Your task to perform on an android device: What's the weather going to be tomorrow? Image 0: 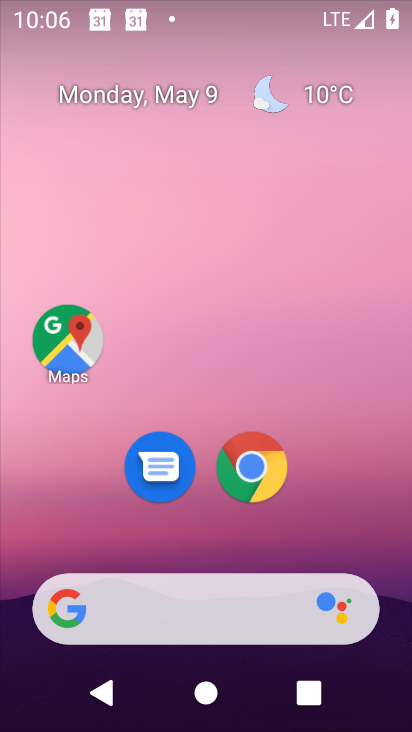
Step 0: click (309, 97)
Your task to perform on an android device: What's the weather going to be tomorrow? Image 1: 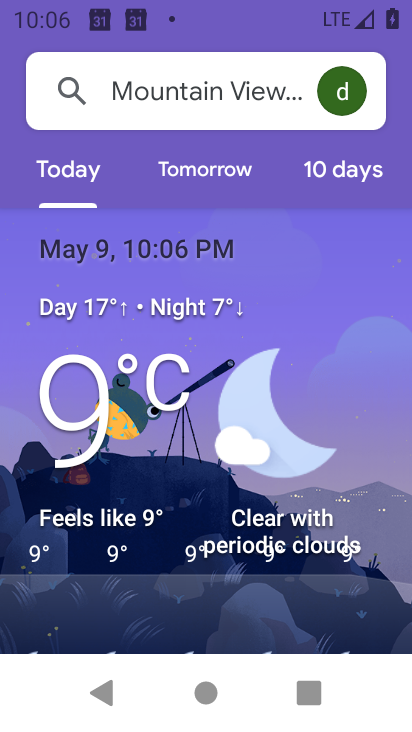
Step 1: click (177, 175)
Your task to perform on an android device: What's the weather going to be tomorrow? Image 2: 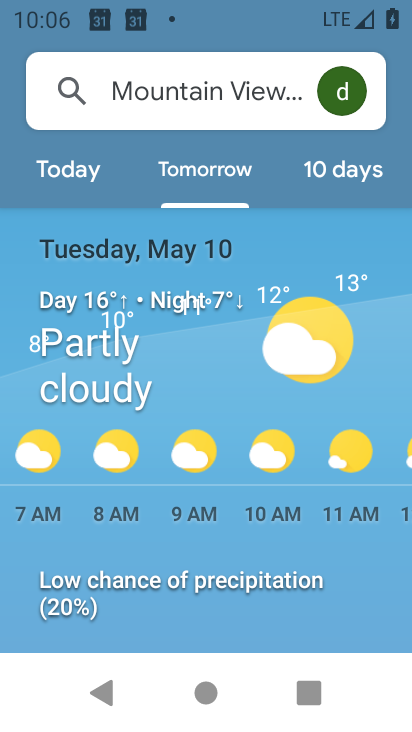
Step 2: task complete